Your task to perform on an android device: Is it going to rain this weekend? Image 0: 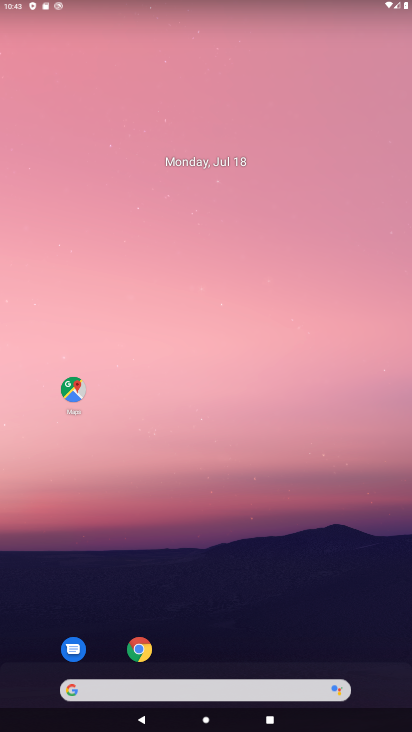
Step 0: click (85, 689)
Your task to perform on an android device: Is it going to rain this weekend? Image 1: 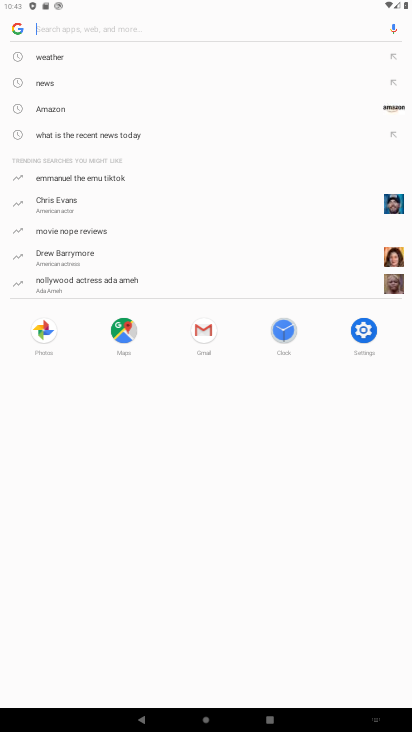
Step 1: type "is it going to rain this weekend"
Your task to perform on an android device: Is it going to rain this weekend? Image 2: 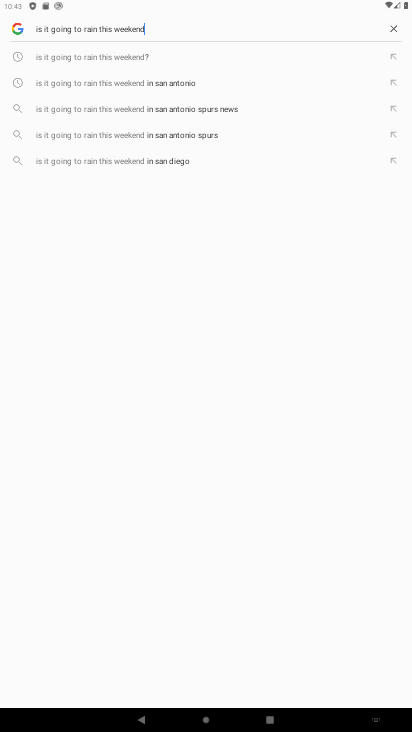
Step 2: click (33, 55)
Your task to perform on an android device: Is it going to rain this weekend? Image 3: 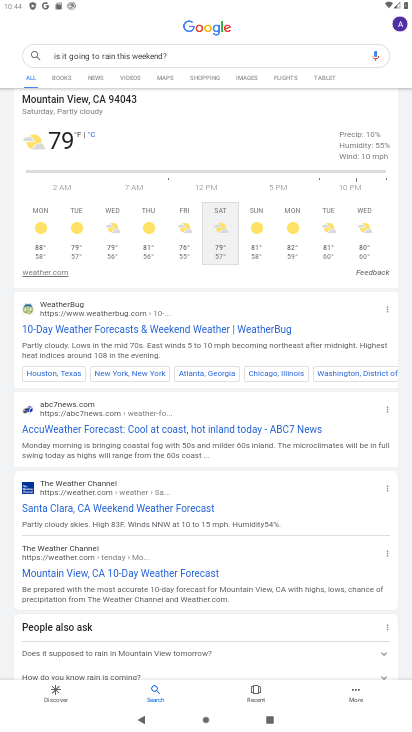
Step 3: task complete